Your task to perform on an android device: open app "Skype" (install if not already installed), go to login, and select forgot password Image 0: 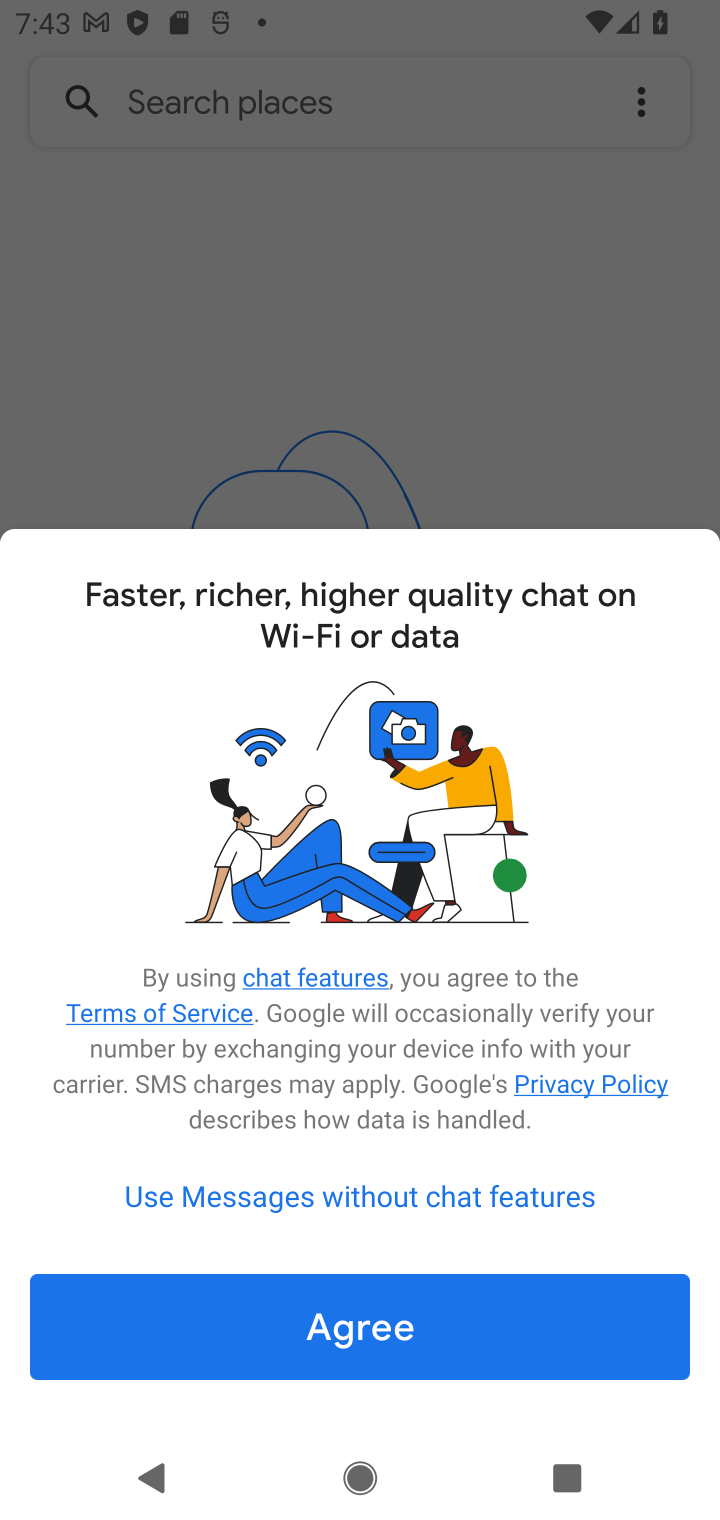
Step 0: press back button
Your task to perform on an android device: open app "Skype" (install if not already installed), go to login, and select forgot password Image 1: 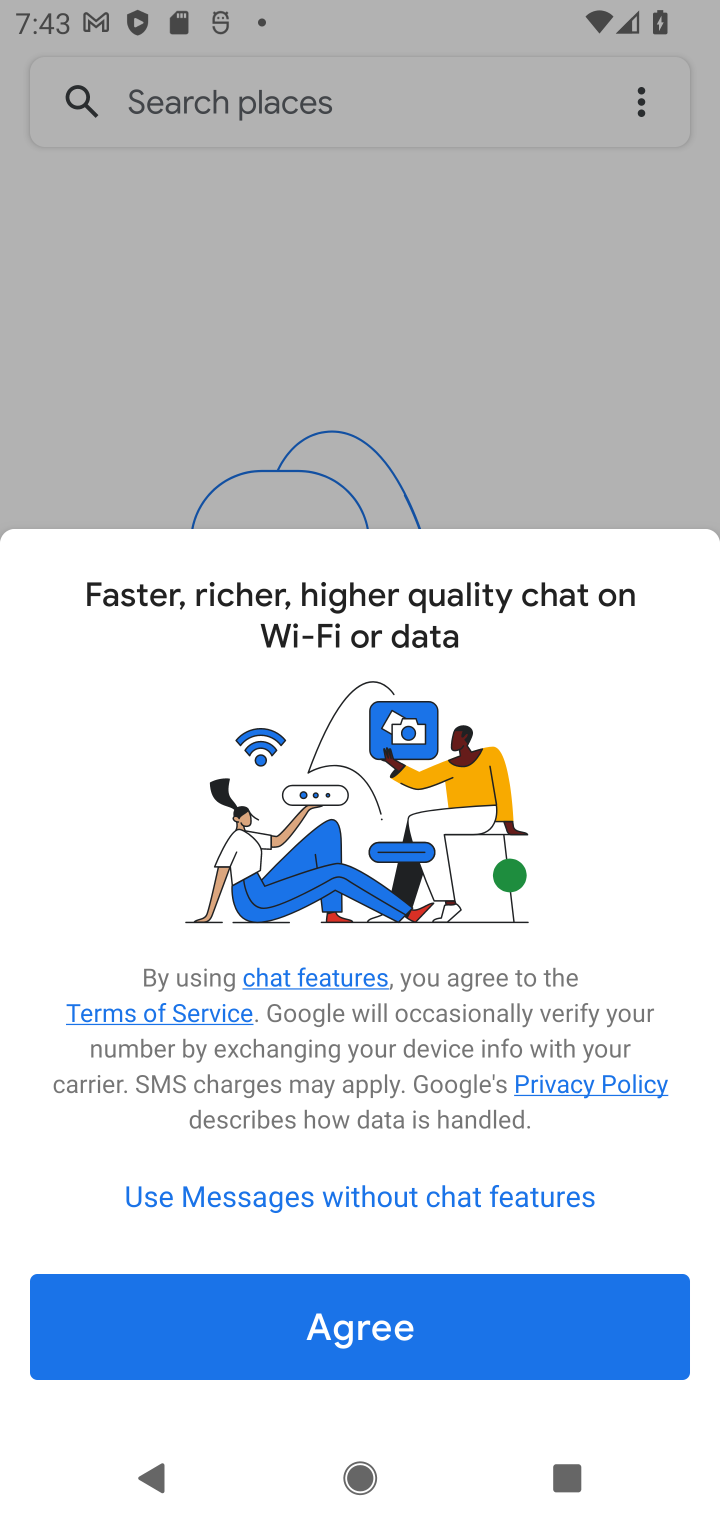
Step 1: press back button
Your task to perform on an android device: open app "Skype" (install if not already installed), go to login, and select forgot password Image 2: 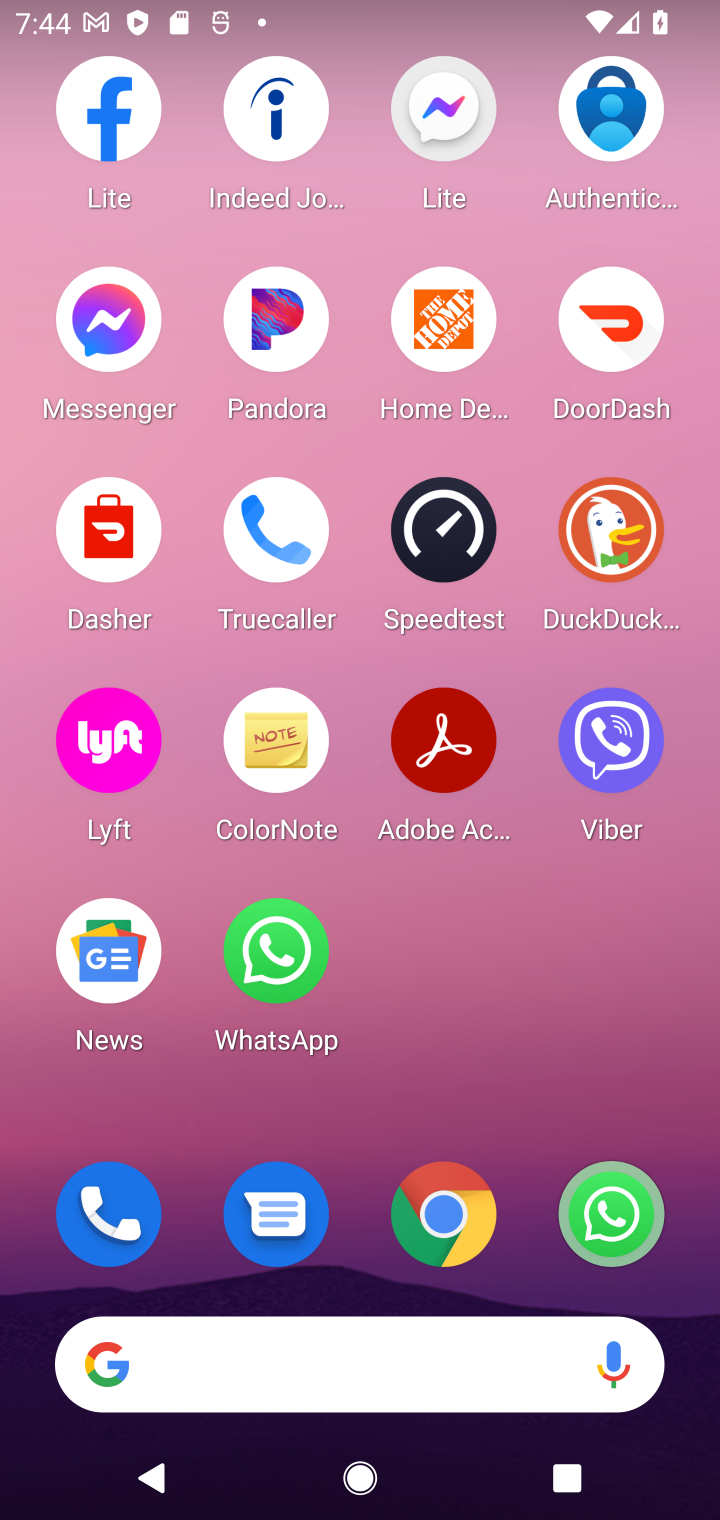
Step 2: drag from (42, 478) to (129, 506)
Your task to perform on an android device: open app "Skype" (install if not already installed), go to login, and select forgot password Image 3: 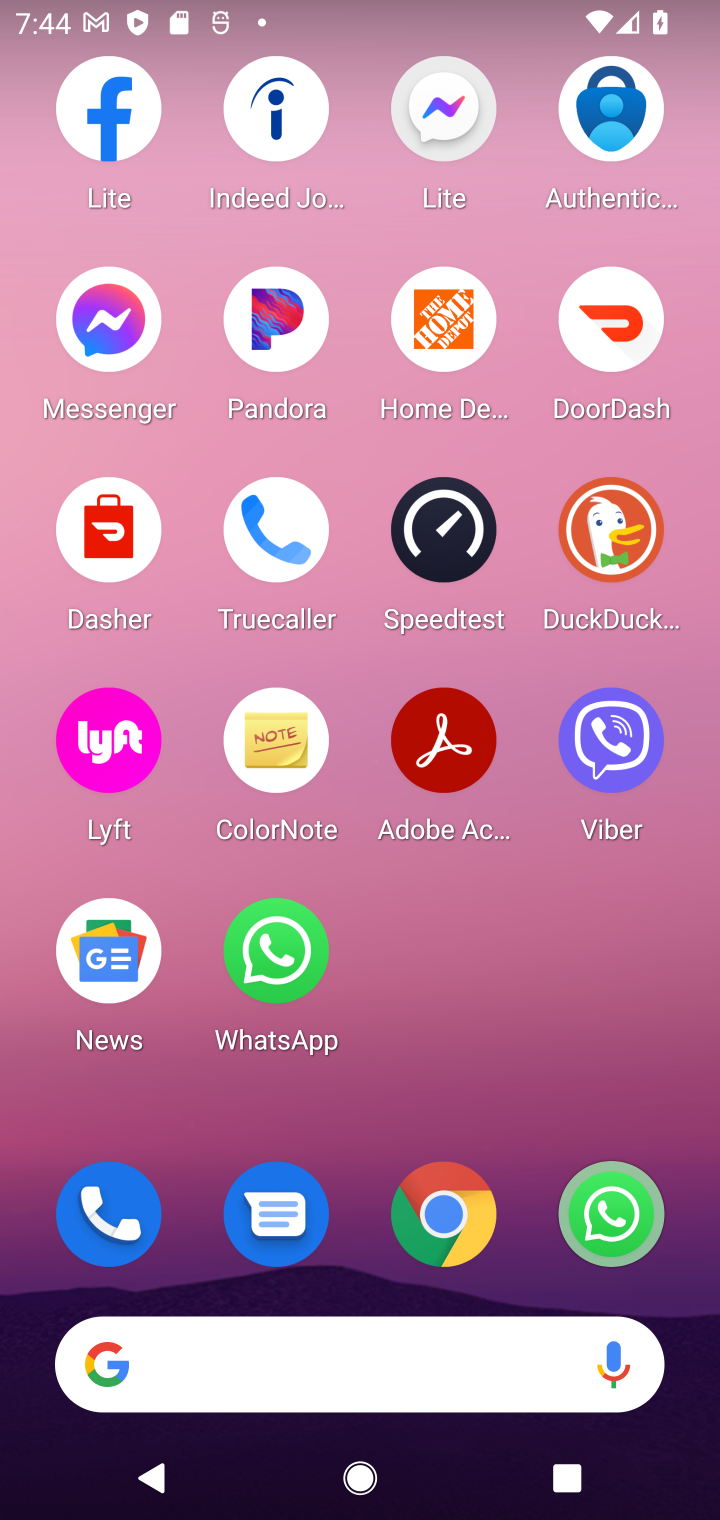
Step 3: drag from (420, 880) to (439, 92)
Your task to perform on an android device: open app "Skype" (install if not already installed), go to login, and select forgot password Image 4: 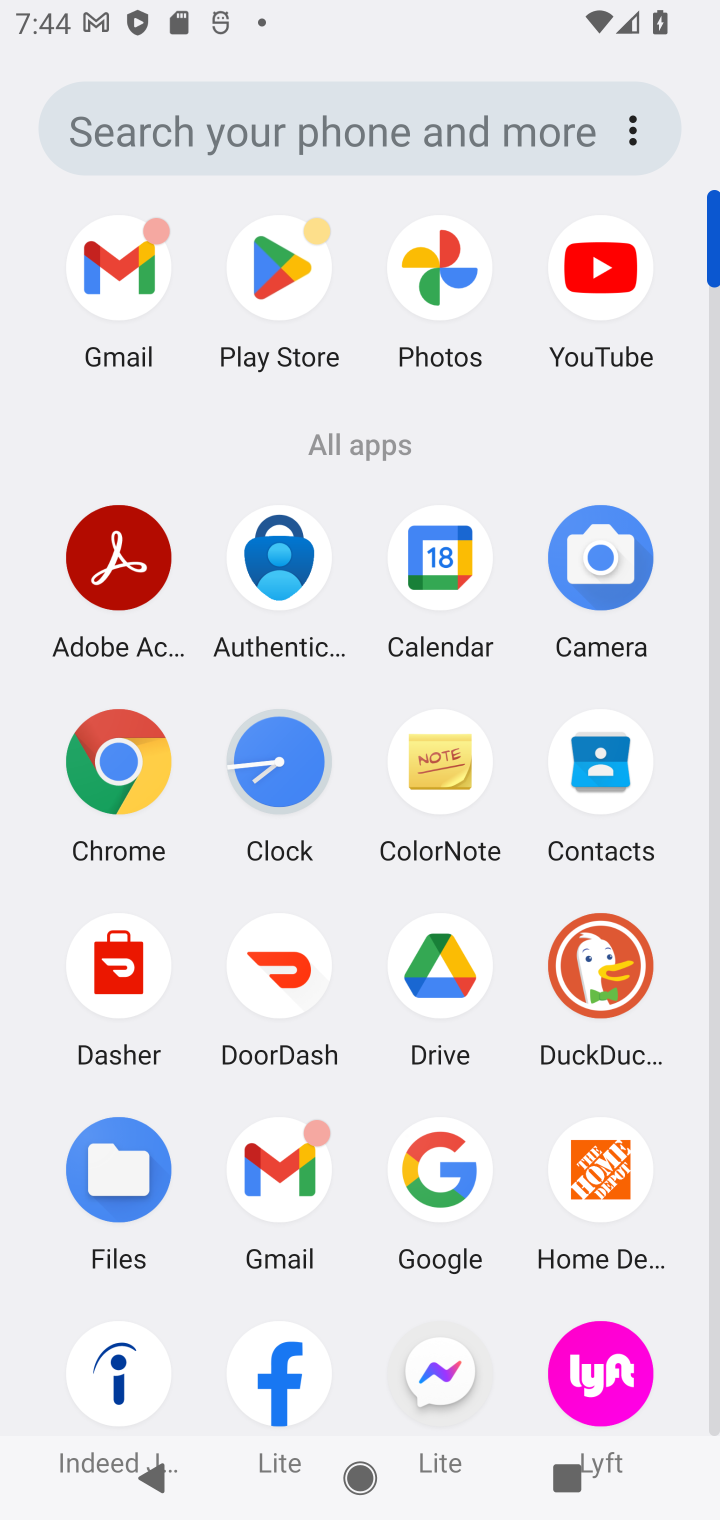
Step 4: click (267, 245)
Your task to perform on an android device: open app "Skype" (install if not already installed), go to login, and select forgot password Image 5: 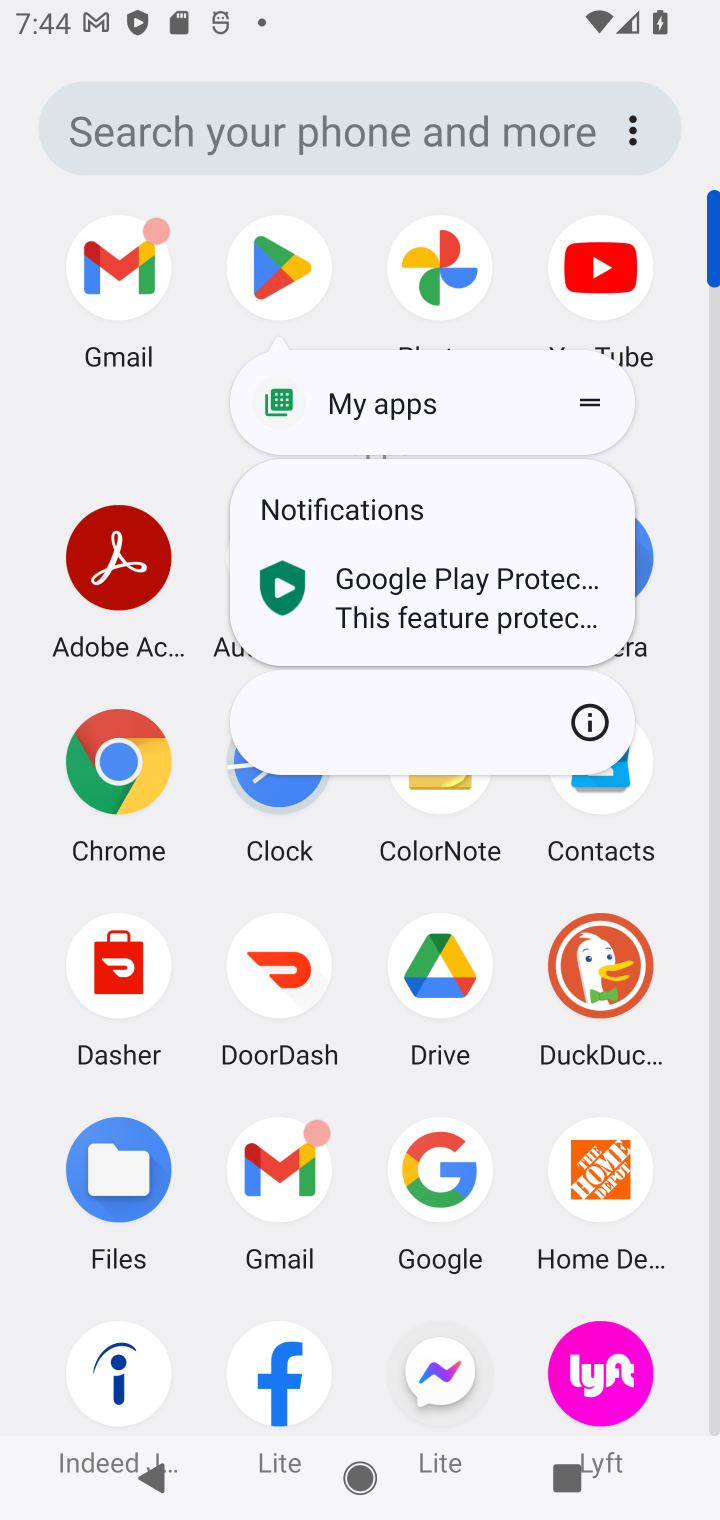
Step 5: click (282, 257)
Your task to perform on an android device: open app "Skype" (install if not already installed), go to login, and select forgot password Image 6: 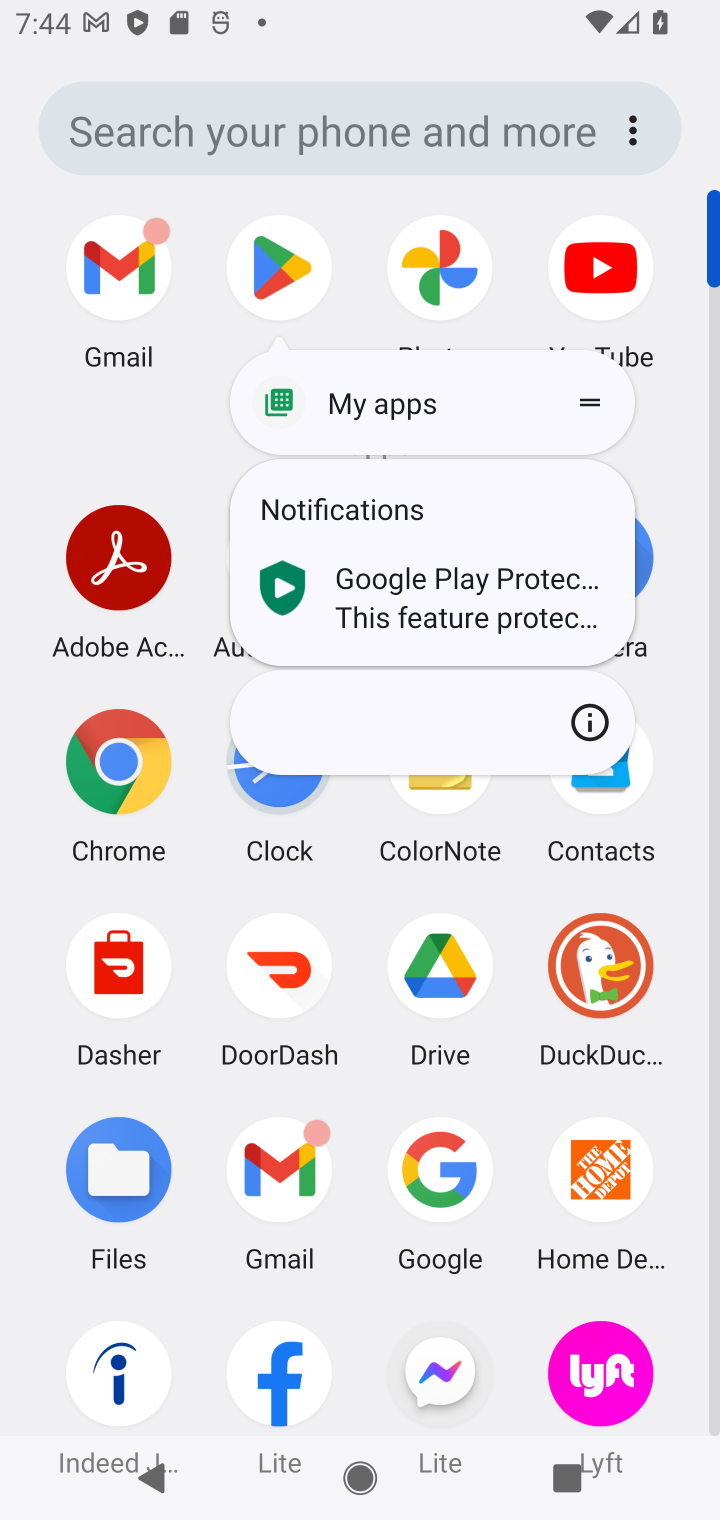
Step 6: click (273, 263)
Your task to perform on an android device: open app "Skype" (install if not already installed), go to login, and select forgot password Image 7: 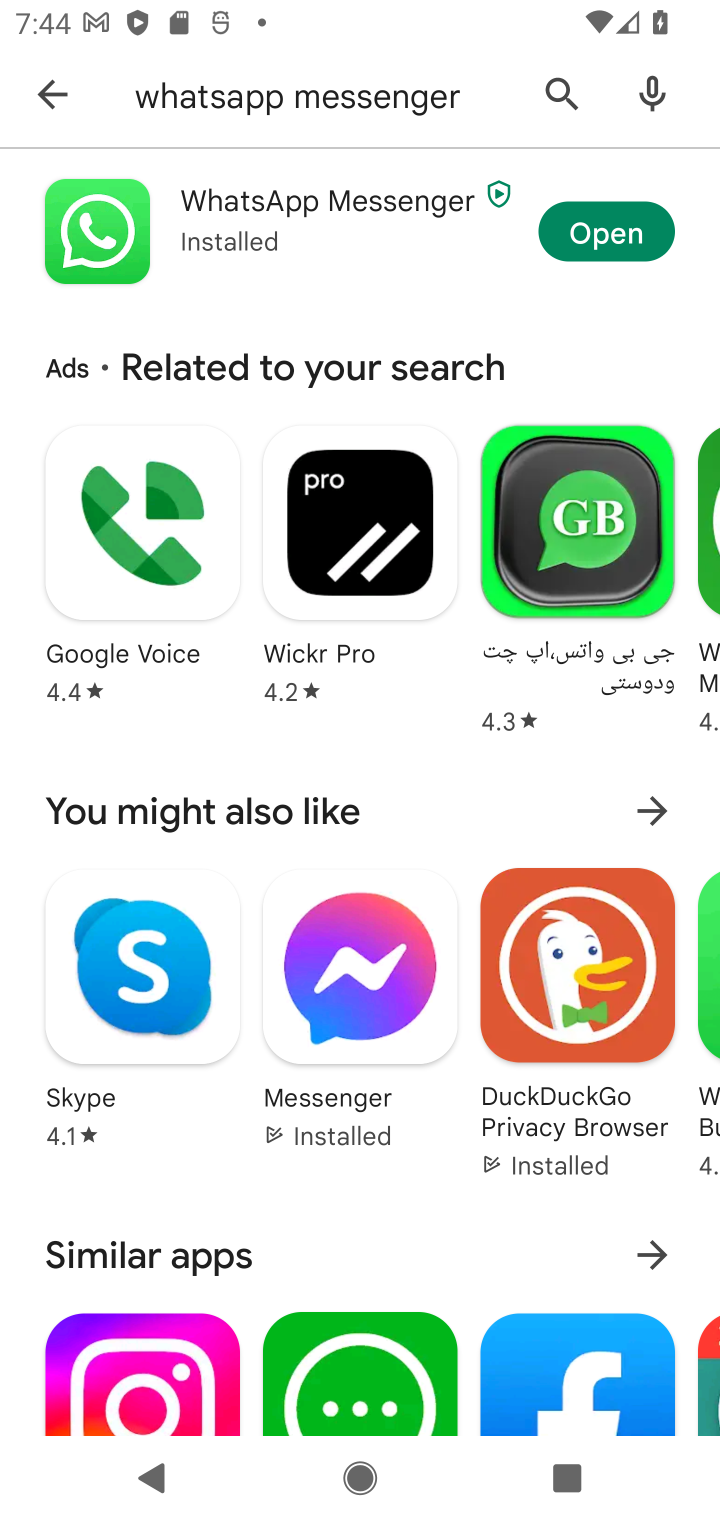
Step 7: click (558, 87)
Your task to perform on an android device: open app "Skype" (install if not already installed), go to login, and select forgot password Image 8: 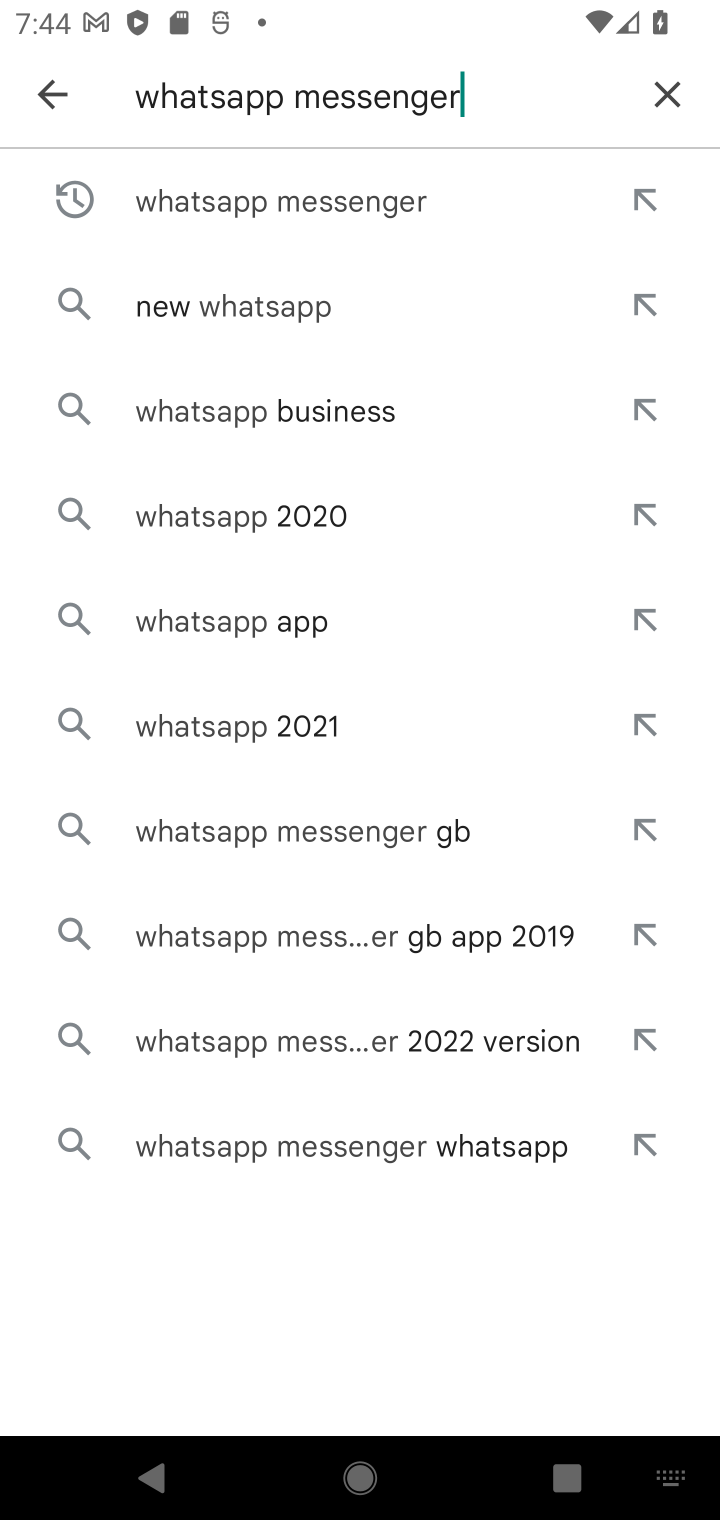
Step 8: click (644, 92)
Your task to perform on an android device: open app "Skype" (install if not already installed), go to login, and select forgot password Image 9: 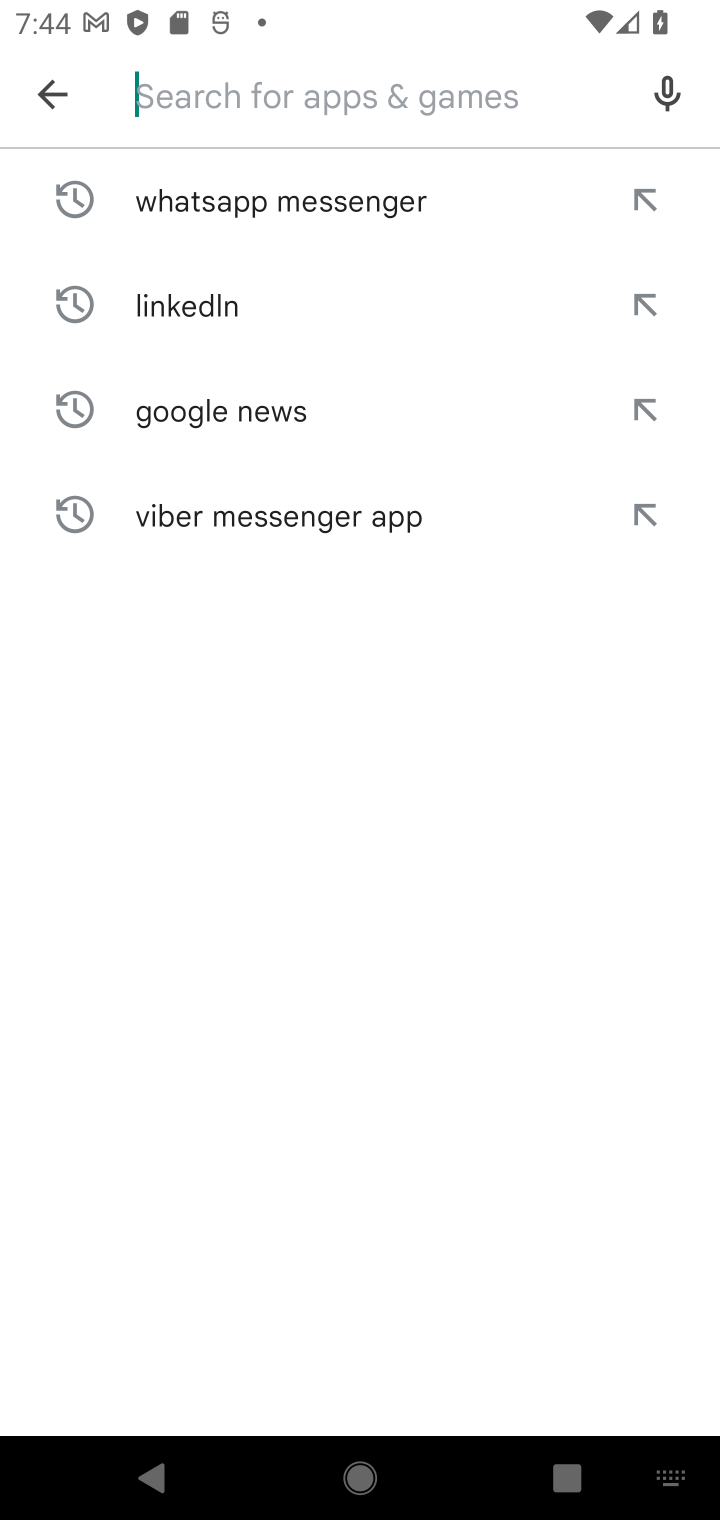
Step 9: type "skype"
Your task to perform on an android device: open app "Skype" (install if not already installed), go to login, and select forgot password Image 10: 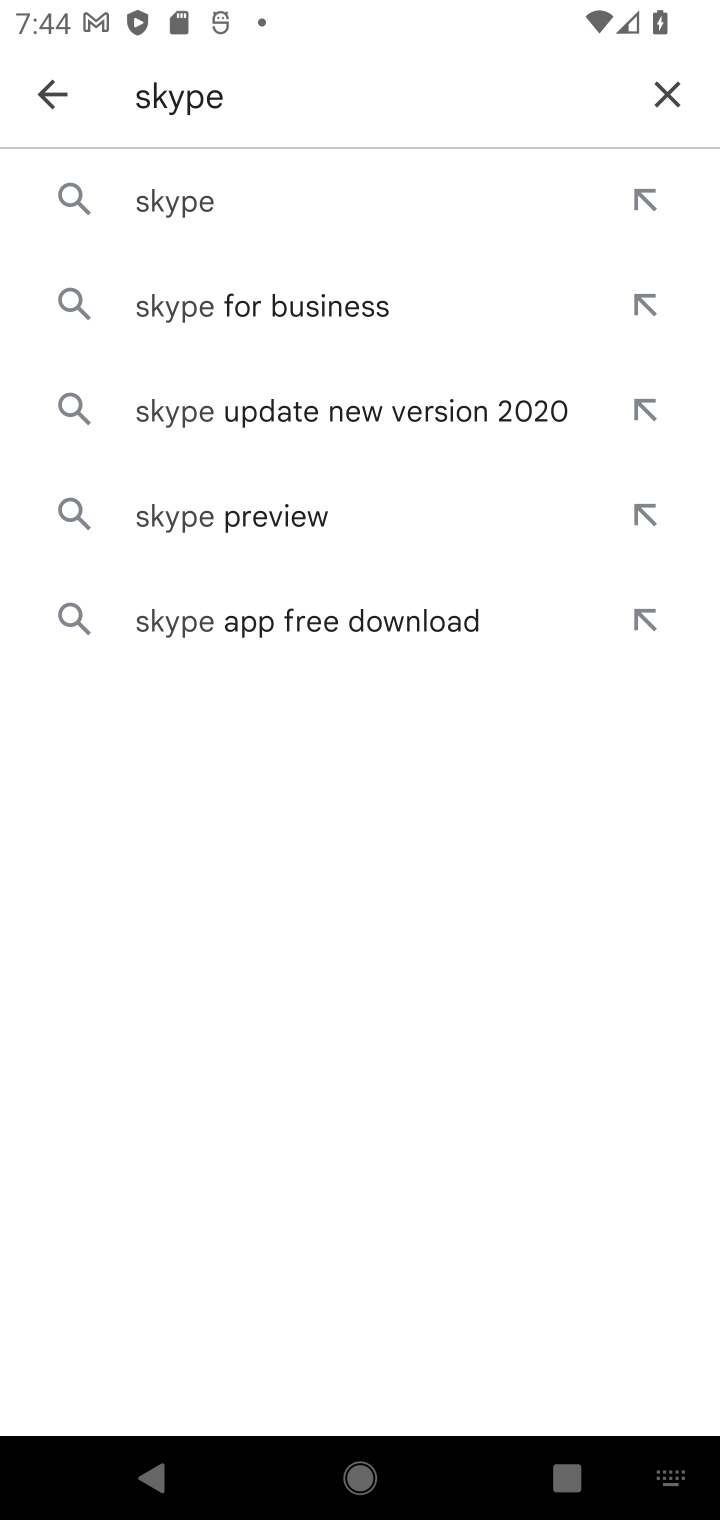
Step 10: click (286, 208)
Your task to perform on an android device: open app "Skype" (install if not already installed), go to login, and select forgot password Image 11: 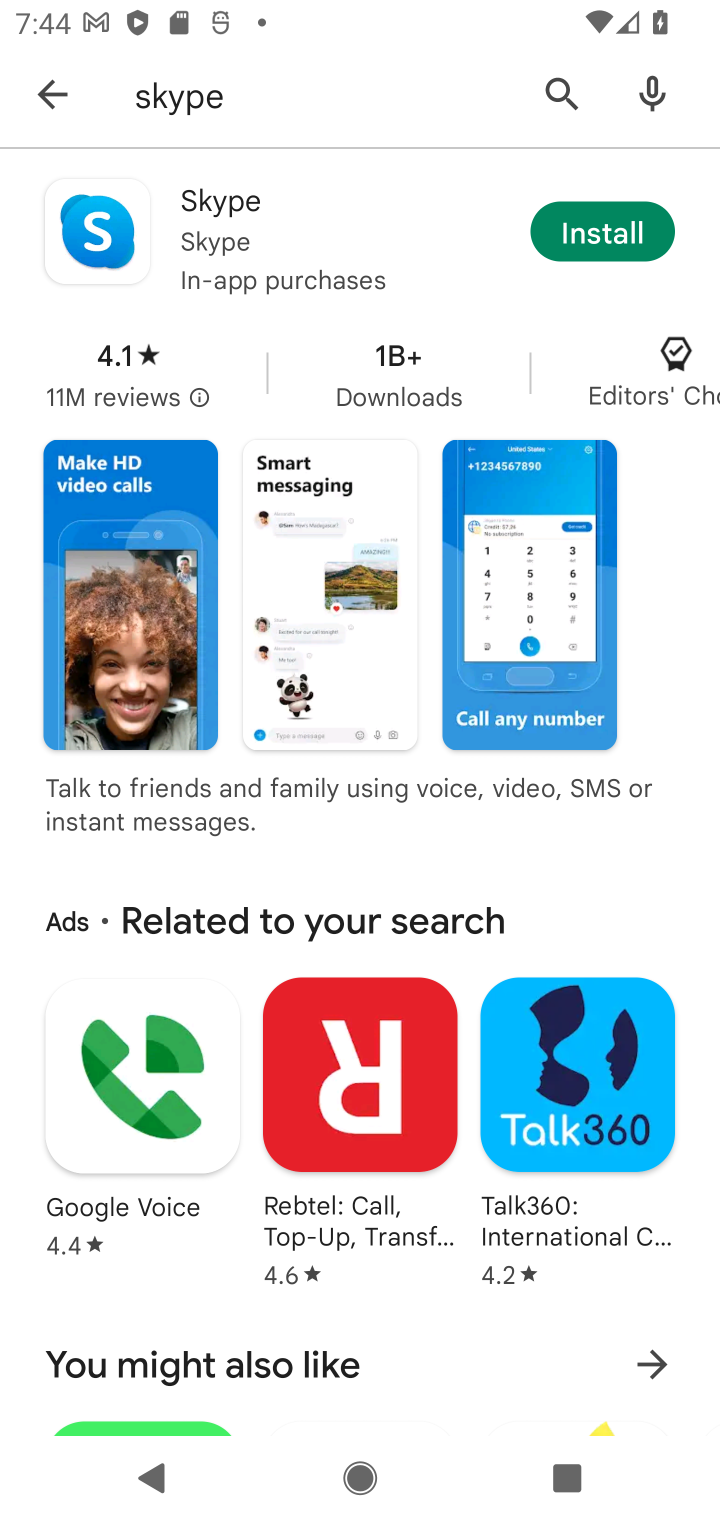
Step 11: click (615, 234)
Your task to perform on an android device: open app "Skype" (install if not already installed), go to login, and select forgot password Image 12: 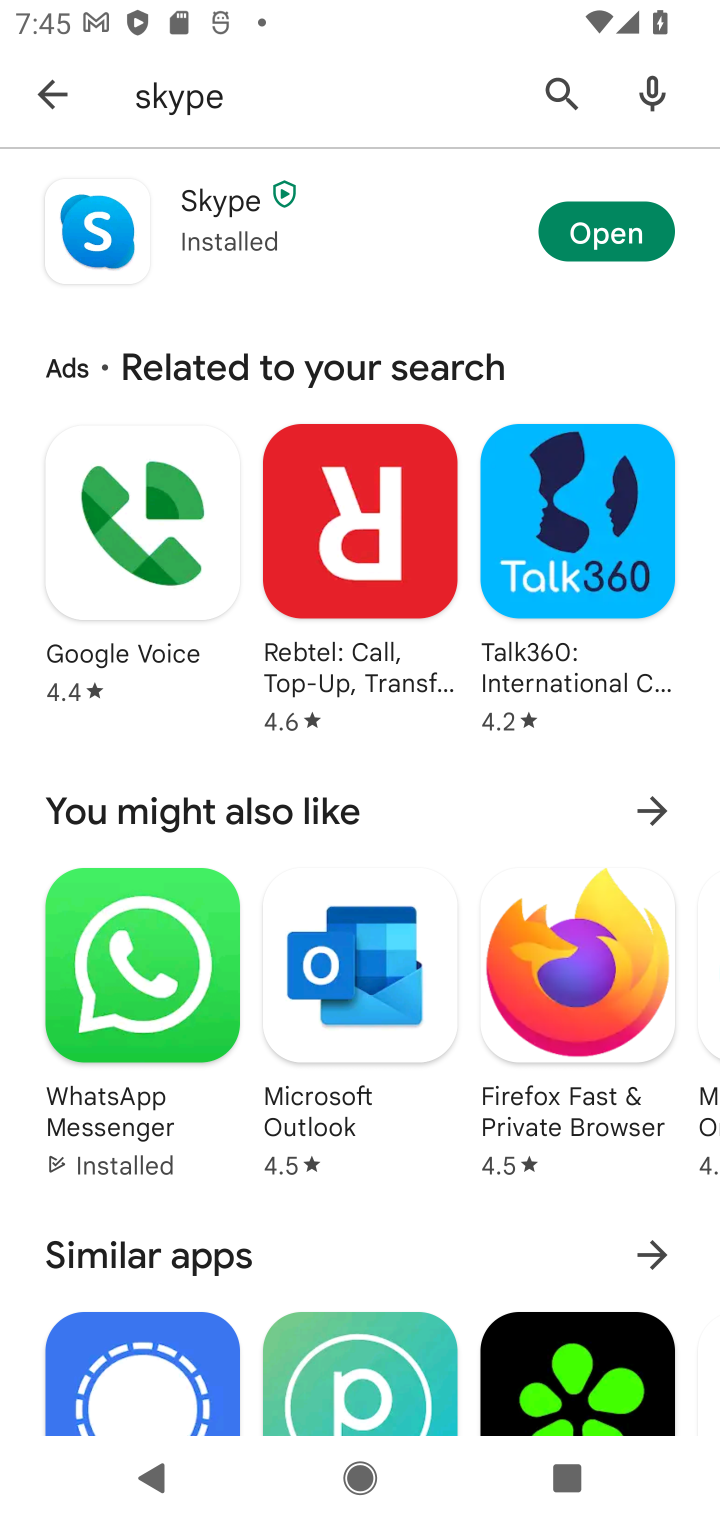
Step 12: click (604, 238)
Your task to perform on an android device: open app "Skype" (install if not already installed), go to login, and select forgot password Image 13: 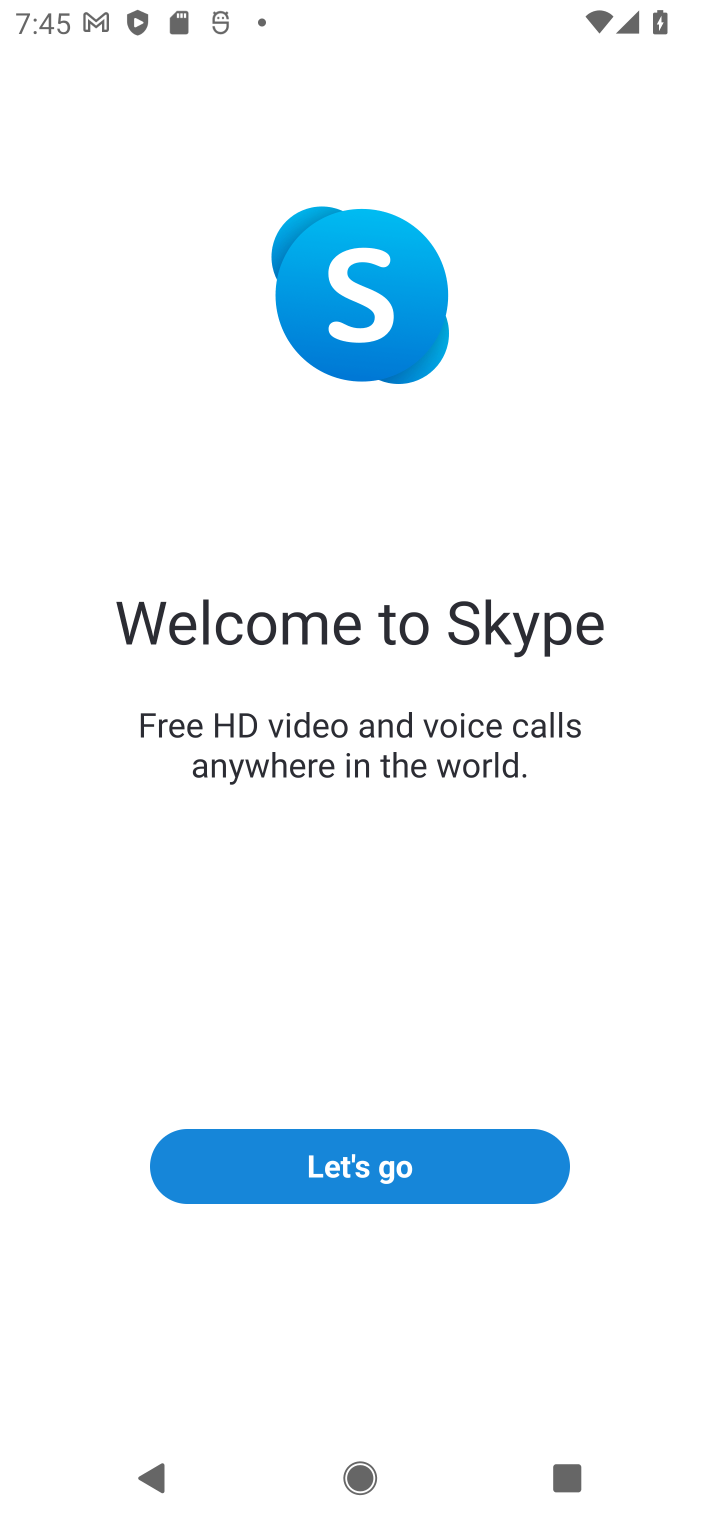
Step 13: click (317, 1165)
Your task to perform on an android device: open app "Skype" (install if not already installed), go to login, and select forgot password Image 14: 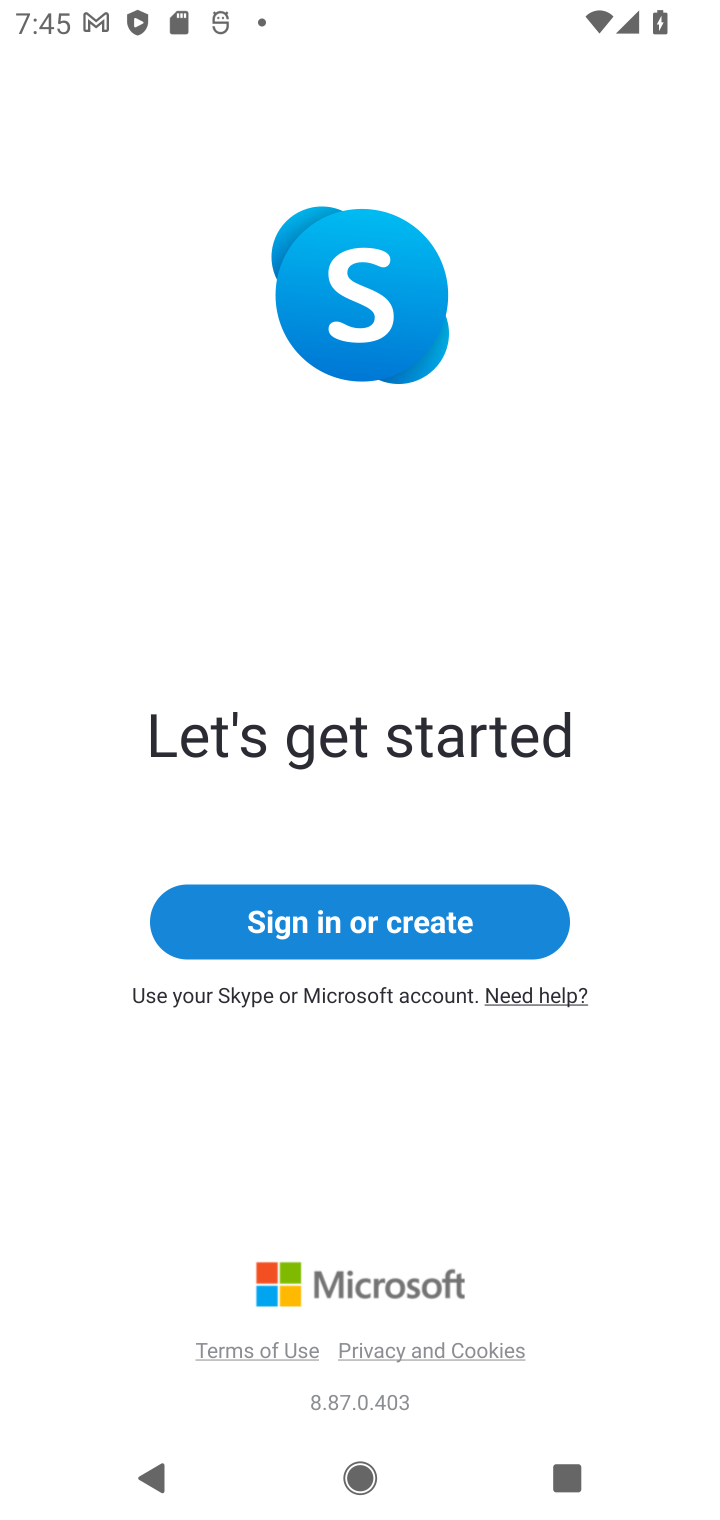
Step 14: click (317, 930)
Your task to perform on an android device: open app "Skype" (install if not already installed), go to login, and select forgot password Image 15: 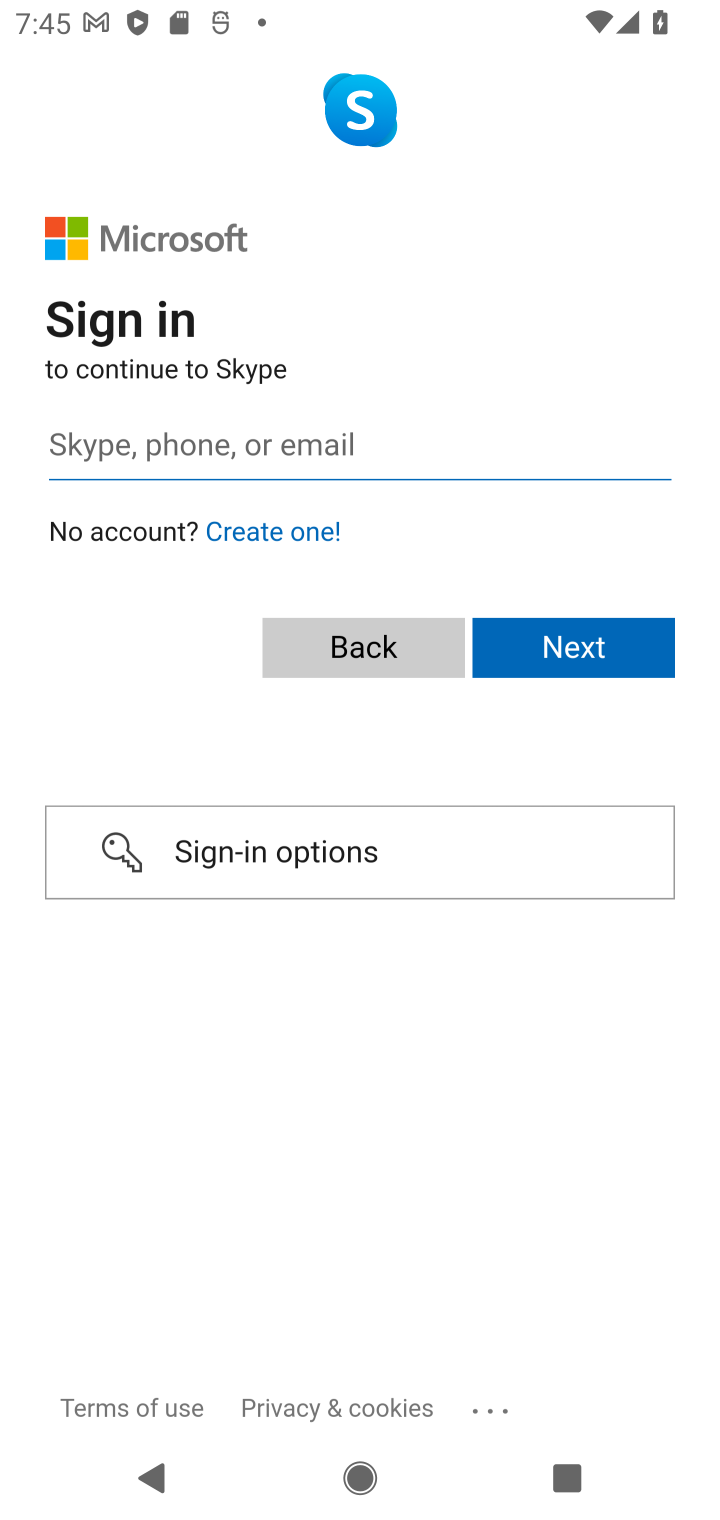
Step 15: click (308, 865)
Your task to perform on an android device: open app "Skype" (install if not already installed), go to login, and select forgot password Image 16: 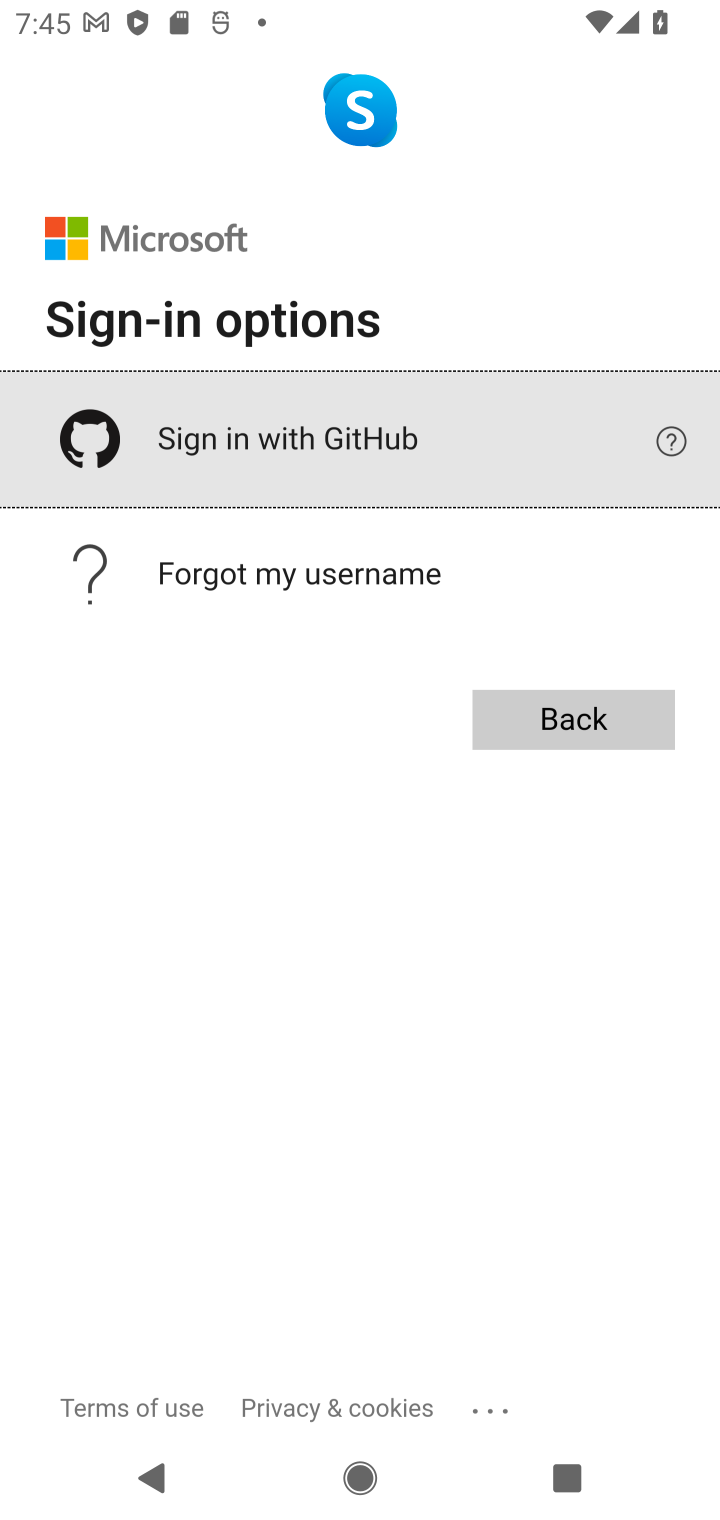
Step 16: click (545, 725)
Your task to perform on an android device: open app "Skype" (install if not already installed), go to login, and select forgot password Image 17: 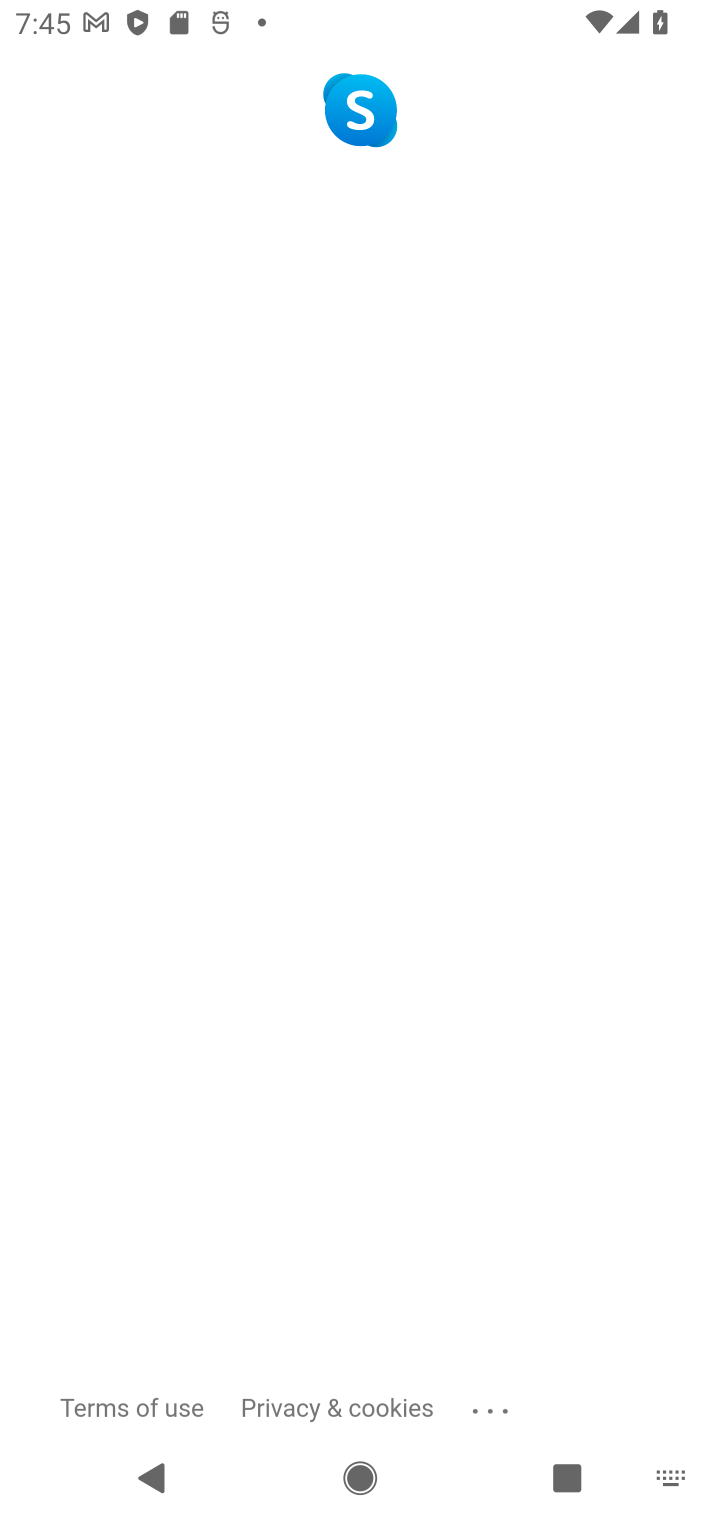
Step 17: task complete